Your task to perform on an android device: Open Youtube and go to "Your channel" Image 0: 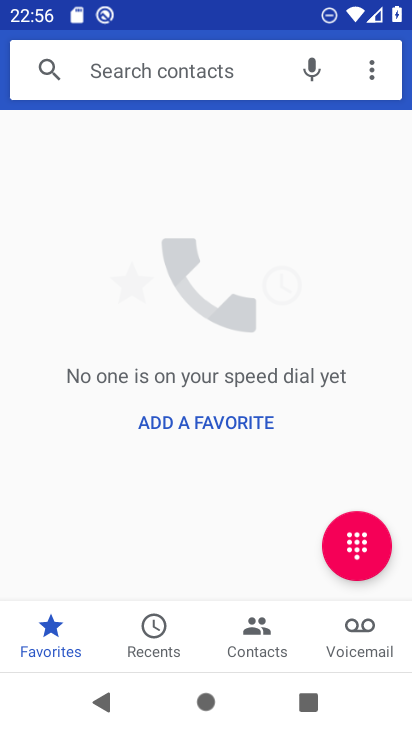
Step 0: press home button
Your task to perform on an android device: Open Youtube and go to "Your channel" Image 1: 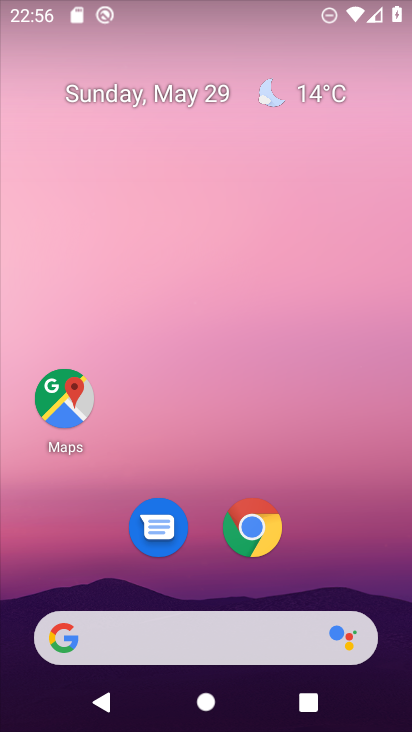
Step 1: drag from (186, 620) to (279, 36)
Your task to perform on an android device: Open Youtube and go to "Your channel" Image 2: 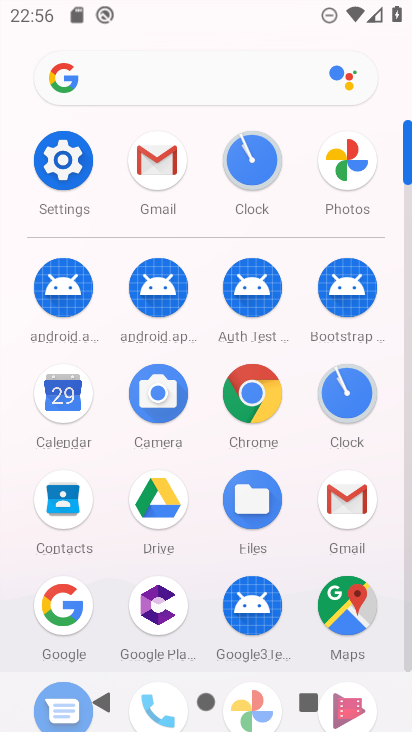
Step 2: drag from (201, 629) to (315, 116)
Your task to perform on an android device: Open Youtube and go to "Your channel" Image 3: 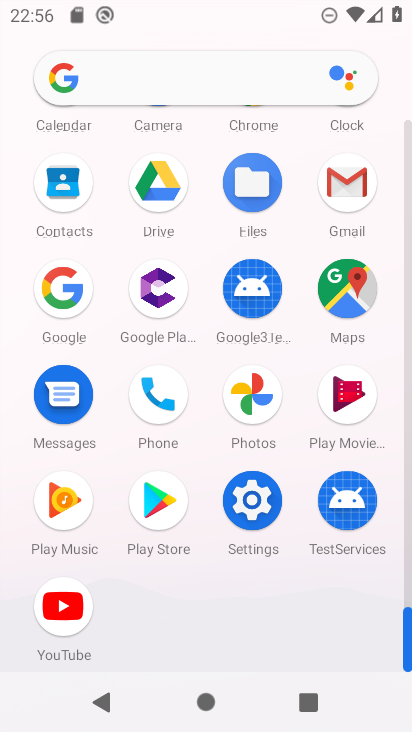
Step 3: click (63, 614)
Your task to perform on an android device: Open Youtube and go to "Your channel" Image 4: 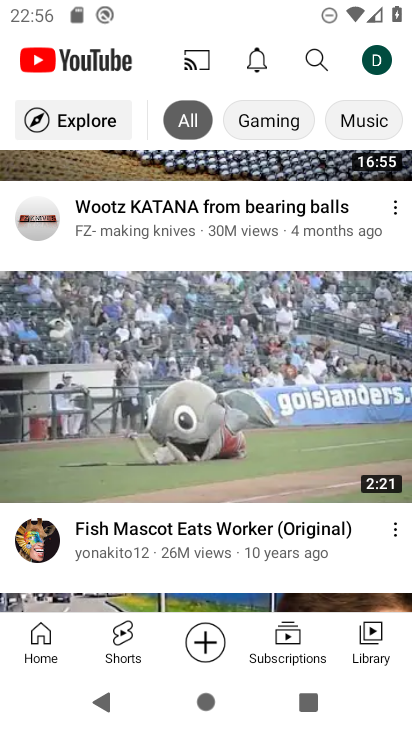
Step 4: click (370, 58)
Your task to perform on an android device: Open Youtube and go to "Your channel" Image 5: 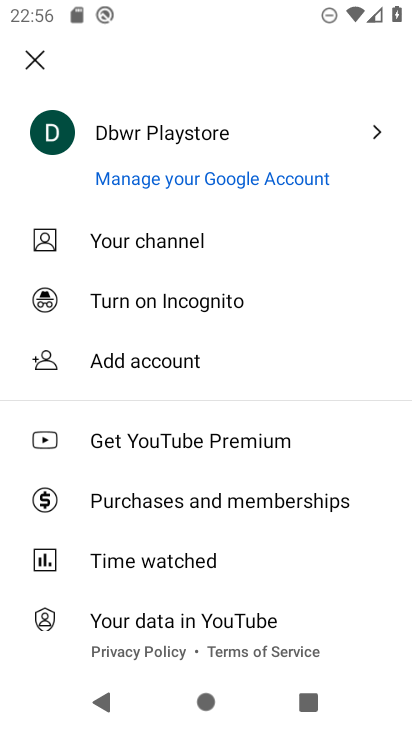
Step 5: click (151, 233)
Your task to perform on an android device: Open Youtube and go to "Your channel" Image 6: 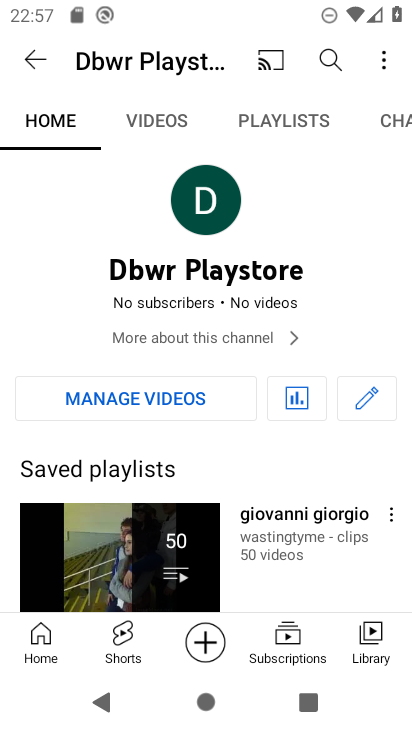
Step 6: task complete